Your task to perform on an android device: Open network settings Image 0: 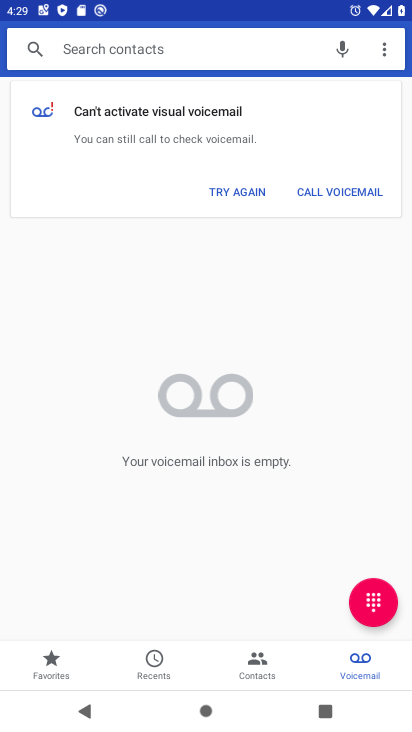
Step 0: click (214, 13)
Your task to perform on an android device: Open network settings Image 1: 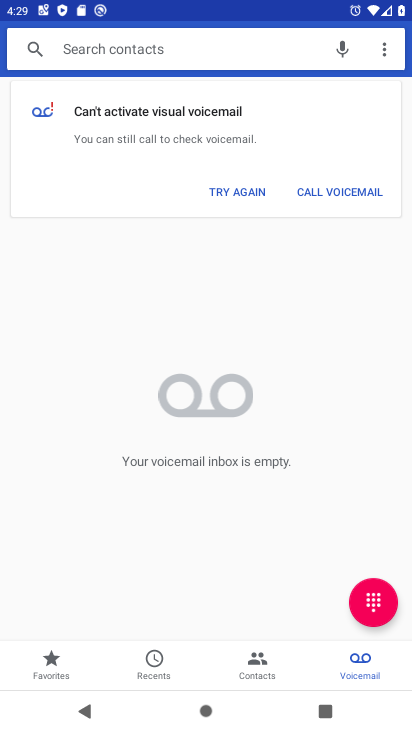
Step 1: press home button
Your task to perform on an android device: Open network settings Image 2: 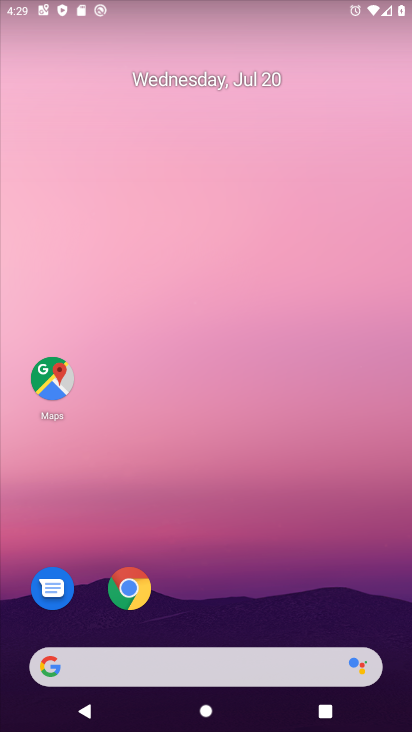
Step 2: drag from (305, 614) to (260, 98)
Your task to perform on an android device: Open network settings Image 3: 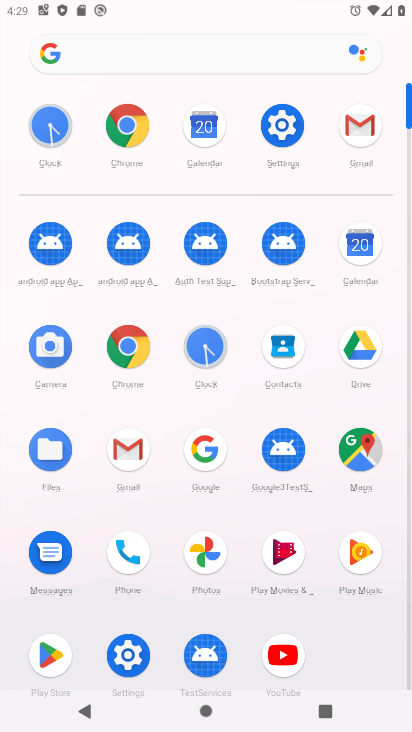
Step 3: click (278, 123)
Your task to perform on an android device: Open network settings Image 4: 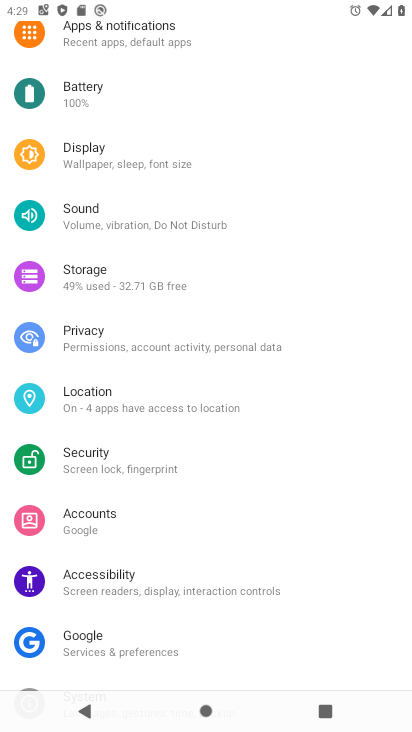
Step 4: drag from (185, 79) to (143, 497)
Your task to perform on an android device: Open network settings Image 5: 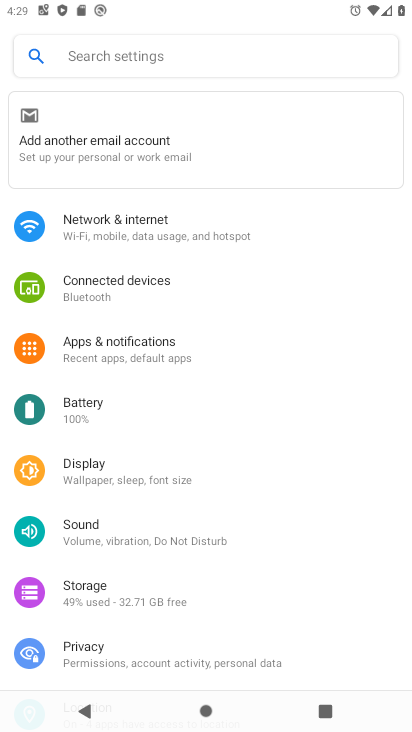
Step 5: click (141, 237)
Your task to perform on an android device: Open network settings Image 6: 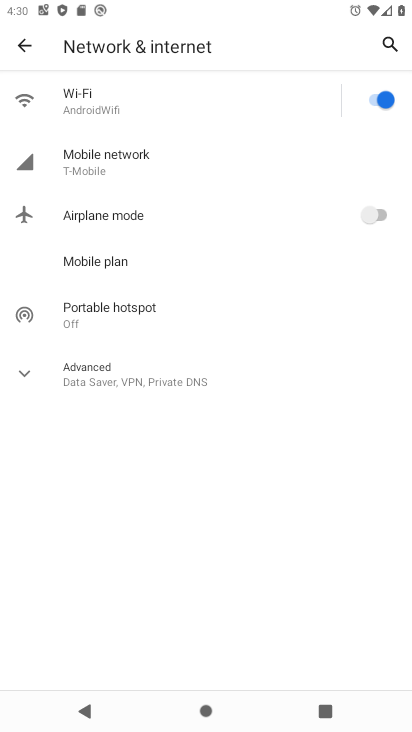
Step 6: task complete